Your task to perform on an android device: Open calendar and show me the first week of next month Image 0: 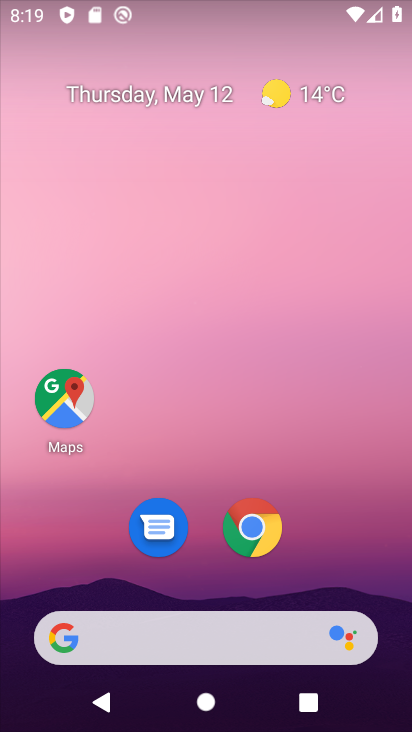
Step 0: drag from (330, 293) to (319, 13)
Your task to perform on an android device: Open calendar and show me the first week of next month Image 1: 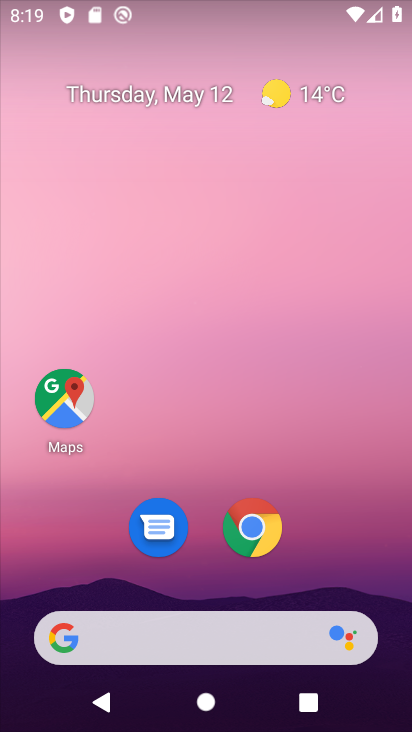
Step 1: drag from (316, 522) to (279, 33)
Your task to perform on an android device: Open calendar and show me the first week of next month Image 2: 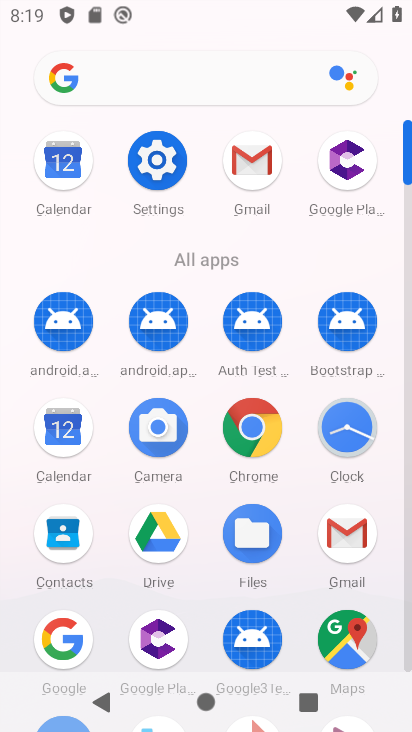
Step 2: click (61, 167)
Your task to perform on an android device: Open calendar and show me the first week of next month Image 3: 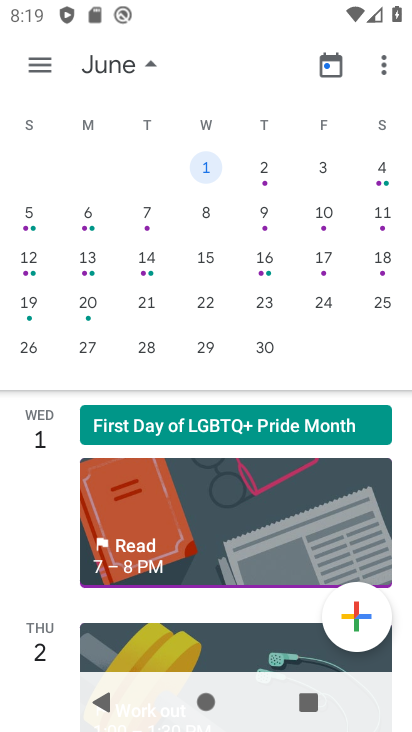
Step 3: click (221, 215)
Your task to perform on an android device: Open calendar and show me the first week of next month Image 4: 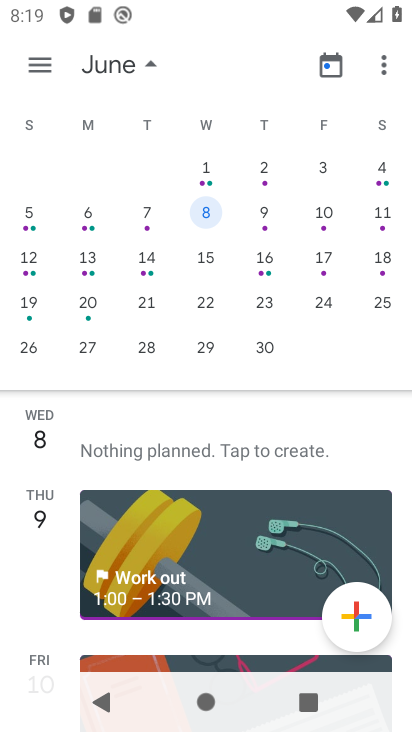
Step 4: task complete